Your task to perform on an android device: turn on sleep mode Image 0: 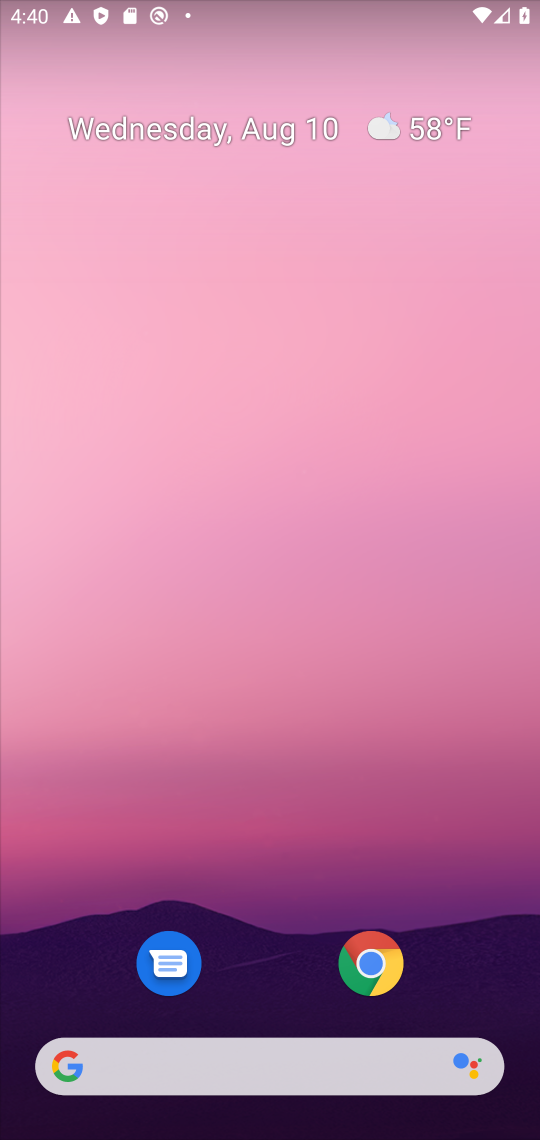
Step 0: drag from (265, 1002) to (284, 125)
Your task to perform on an android device: turn on sleep mode Image 1: 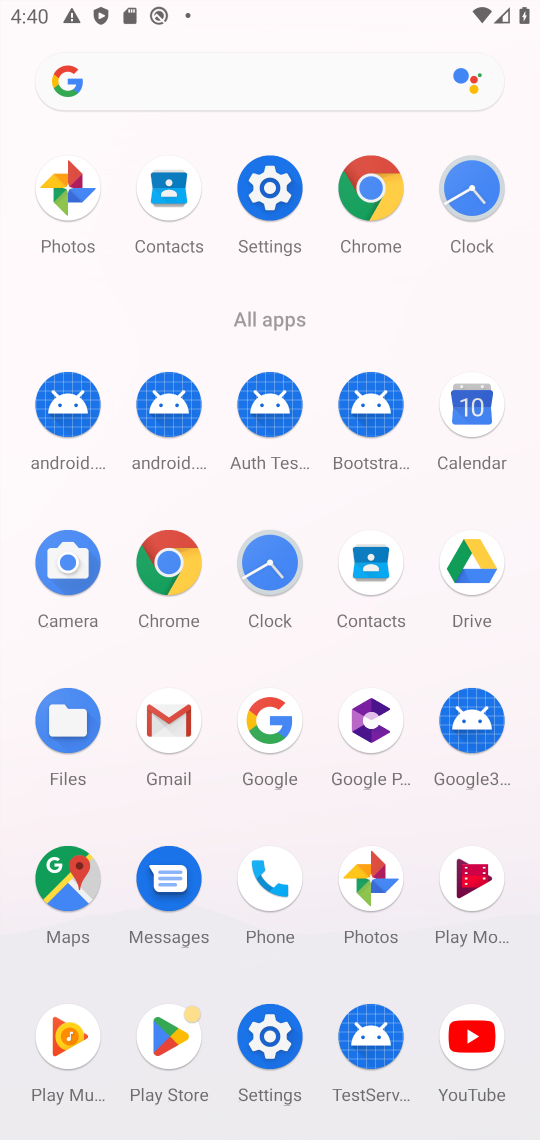
Step 1: drag from (309, 629) to (327, 122)
Your task to perform on an android device: turn on sleep mode Image 2: 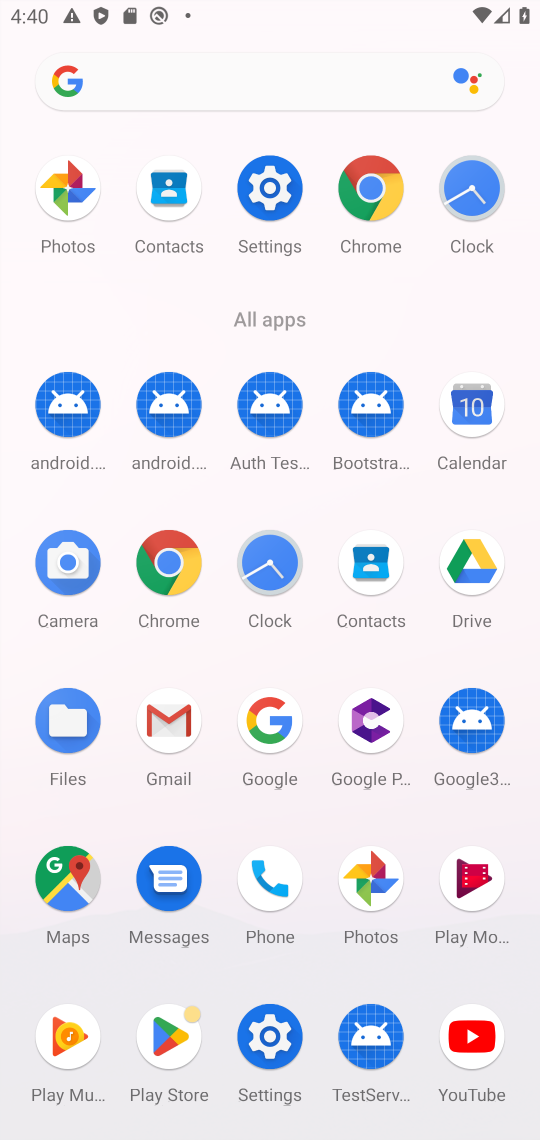
Step 2: click (277, 1032)
Your task to perform on an android device: turn on sleep mode Image 3: 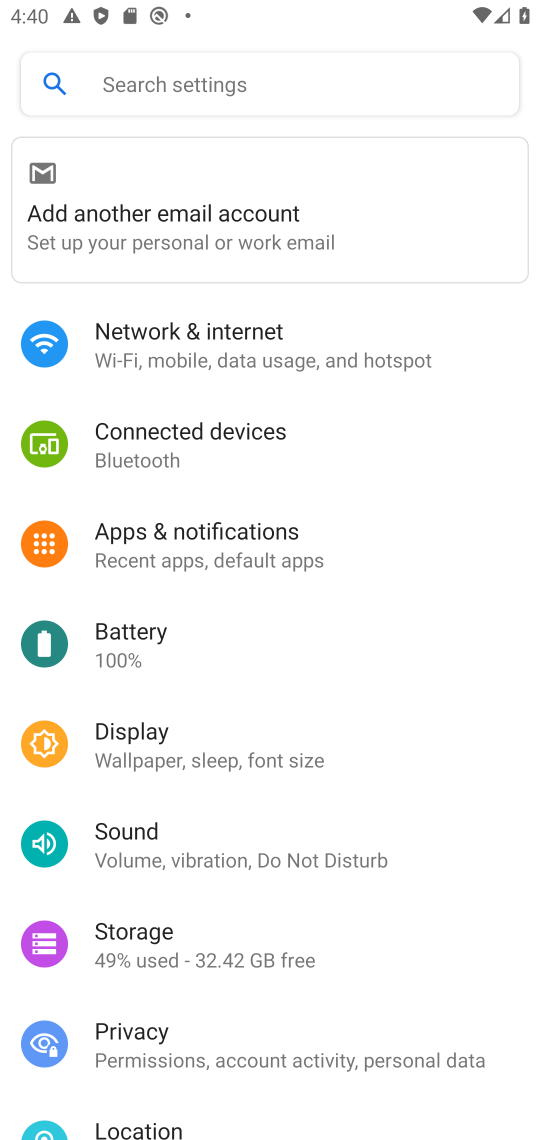
Step 3: click (162, 737)
Your task to perform on an android device: turn on sleep mode Image 4: 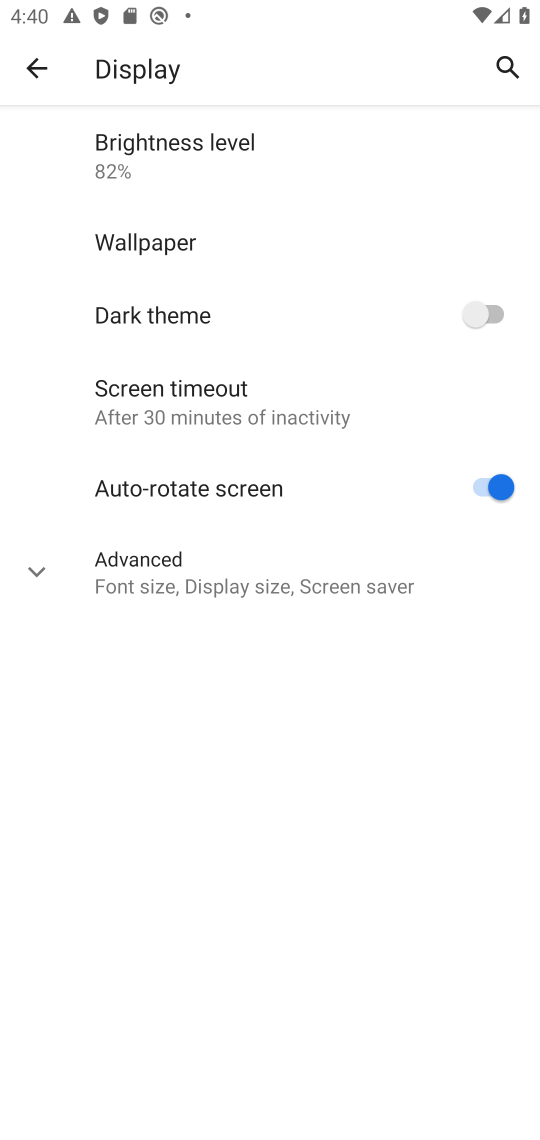
Step 4: task complete